Your task to perform on an android device: turn off notifications in google photos Image 0: 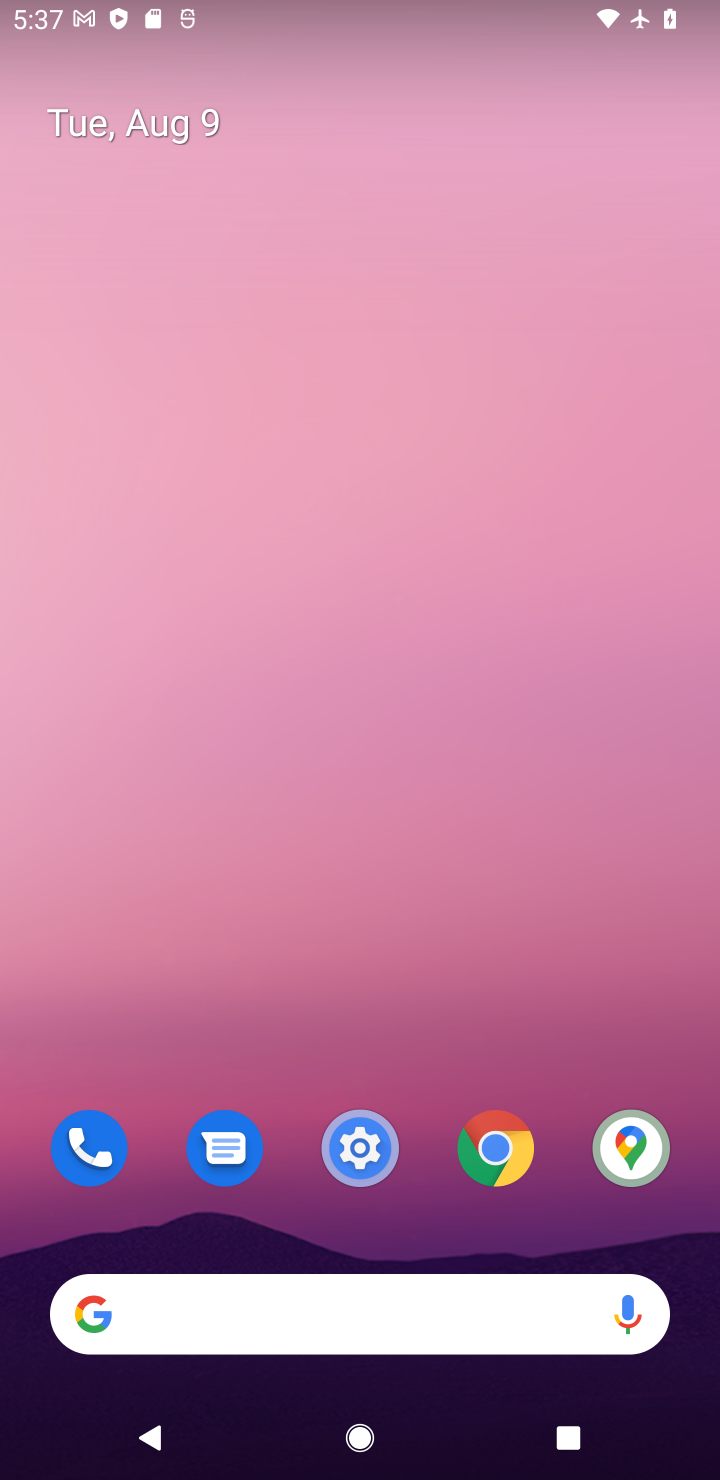
Step 0: drag from (299, 1279) to (435, 41)
Your task to perform on an android device: turn off notifications in google photos Image 1: 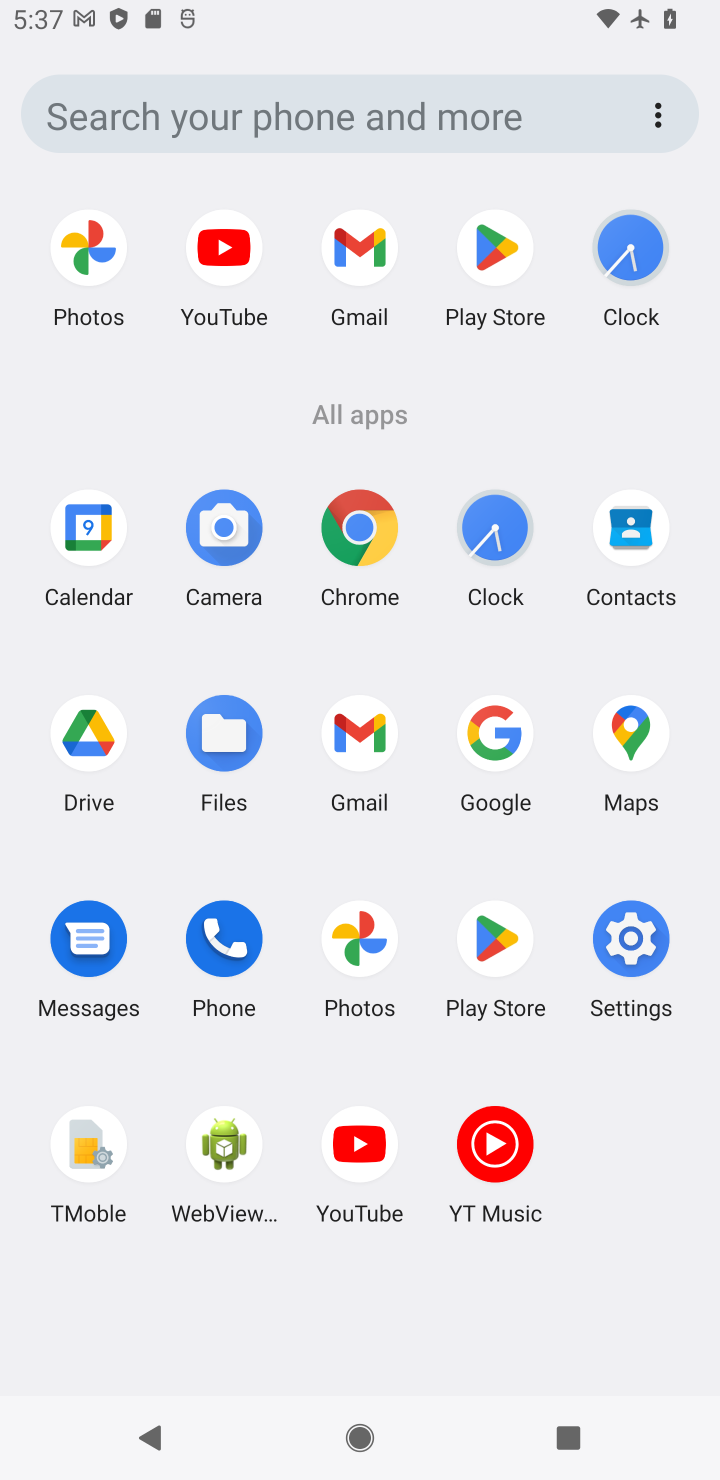
Step 1: click (367, 954)
Your task to perform on an android device: turn off notifications in google photos Image 2: 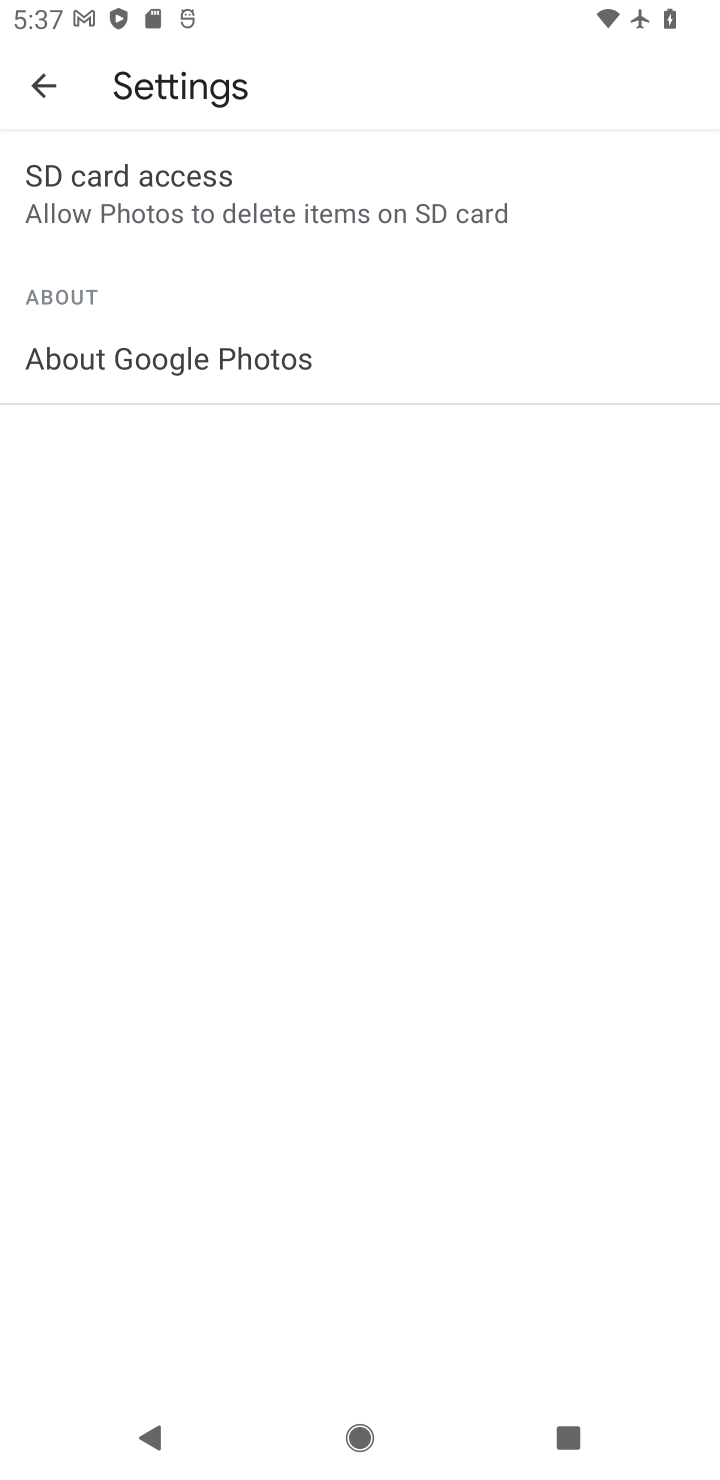
Step 2: click (36, 72)
Your task to perform on an android device: turn off notifications in google photos Image 3: 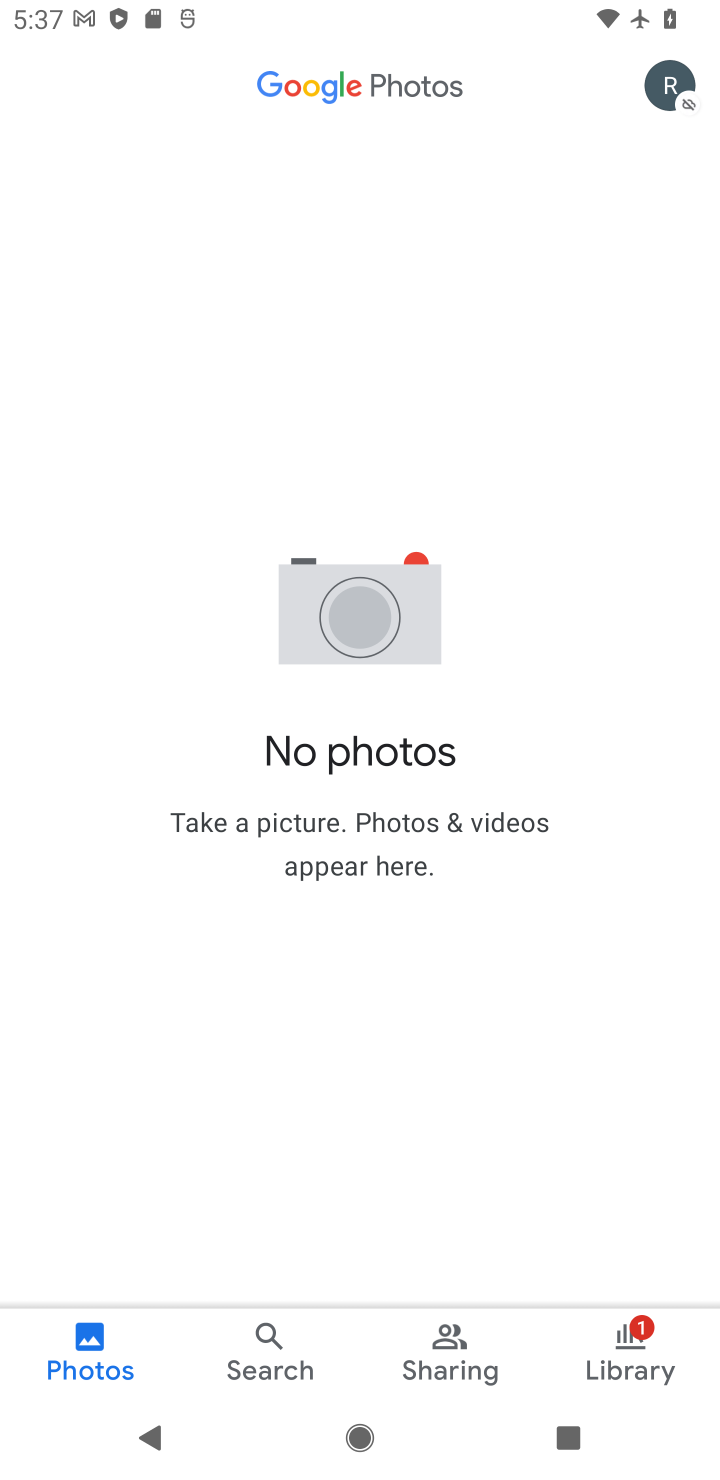
Step 3: click (669, 76)
Your task to perform on an android device: turn off notifications in google photos Image 4: 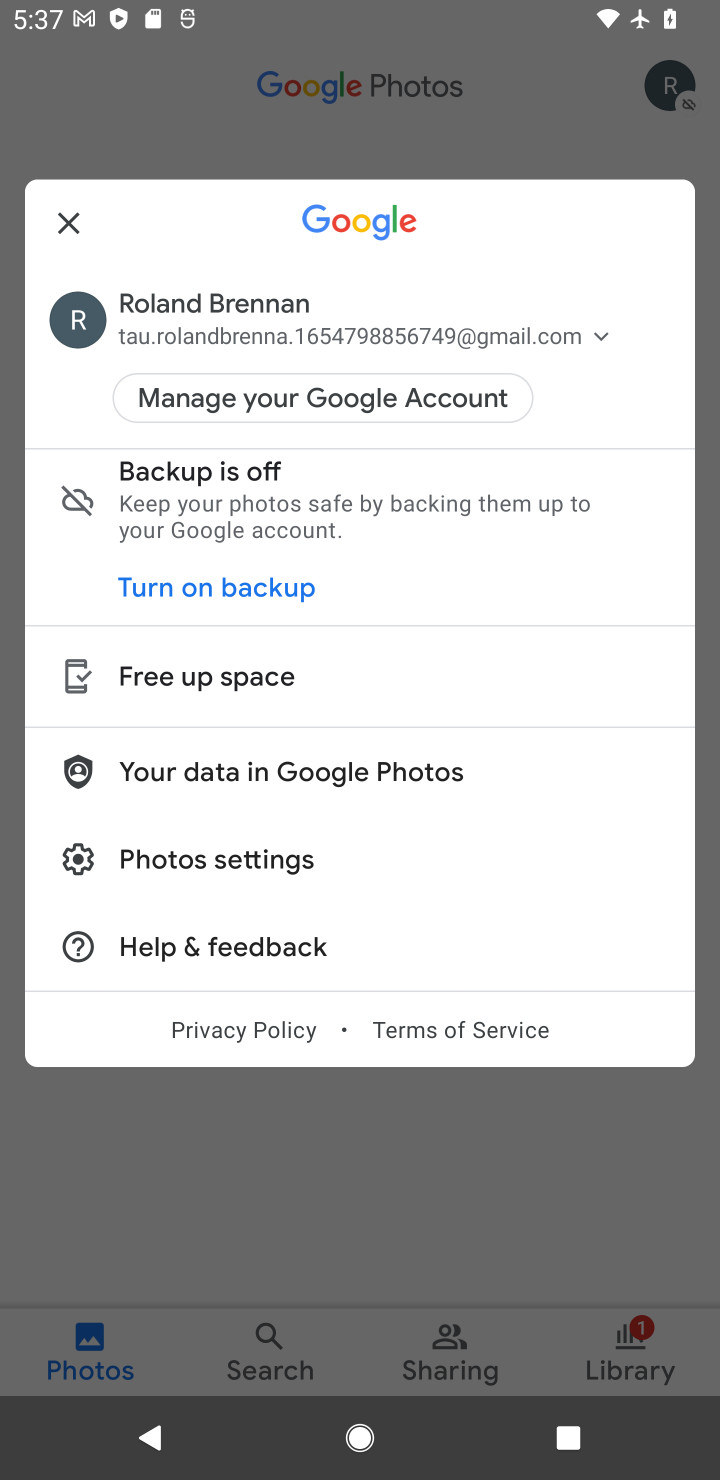
Step 4: click (253, 865)
Your task to perform on an android device: turn off notifications in google photos Image 5: 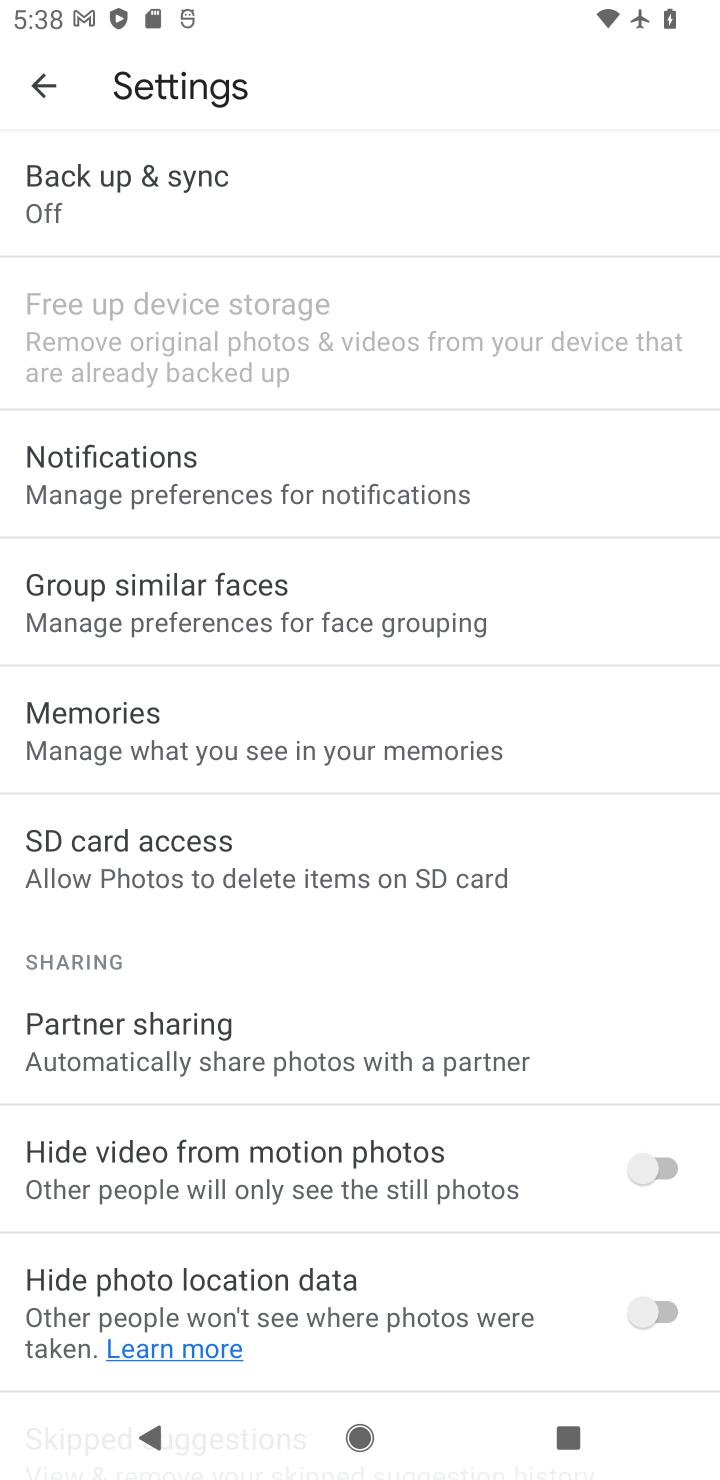
Step 5: click (150, 470)
Your task to perform on an android device: turn off notifications in google photos Image 6: 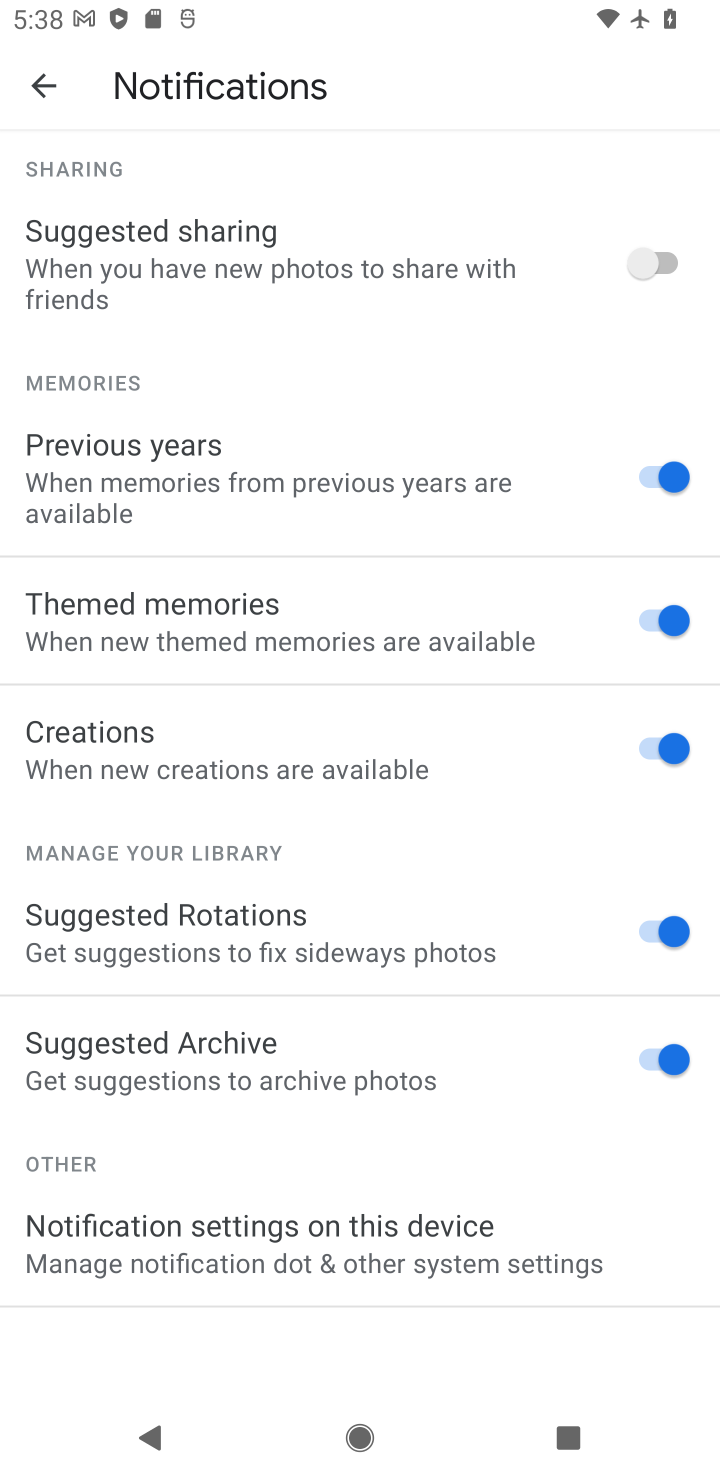
Step 6: click (366, 1270)
Your task to perform on an android device: turn off notifications in google photos Image 7: 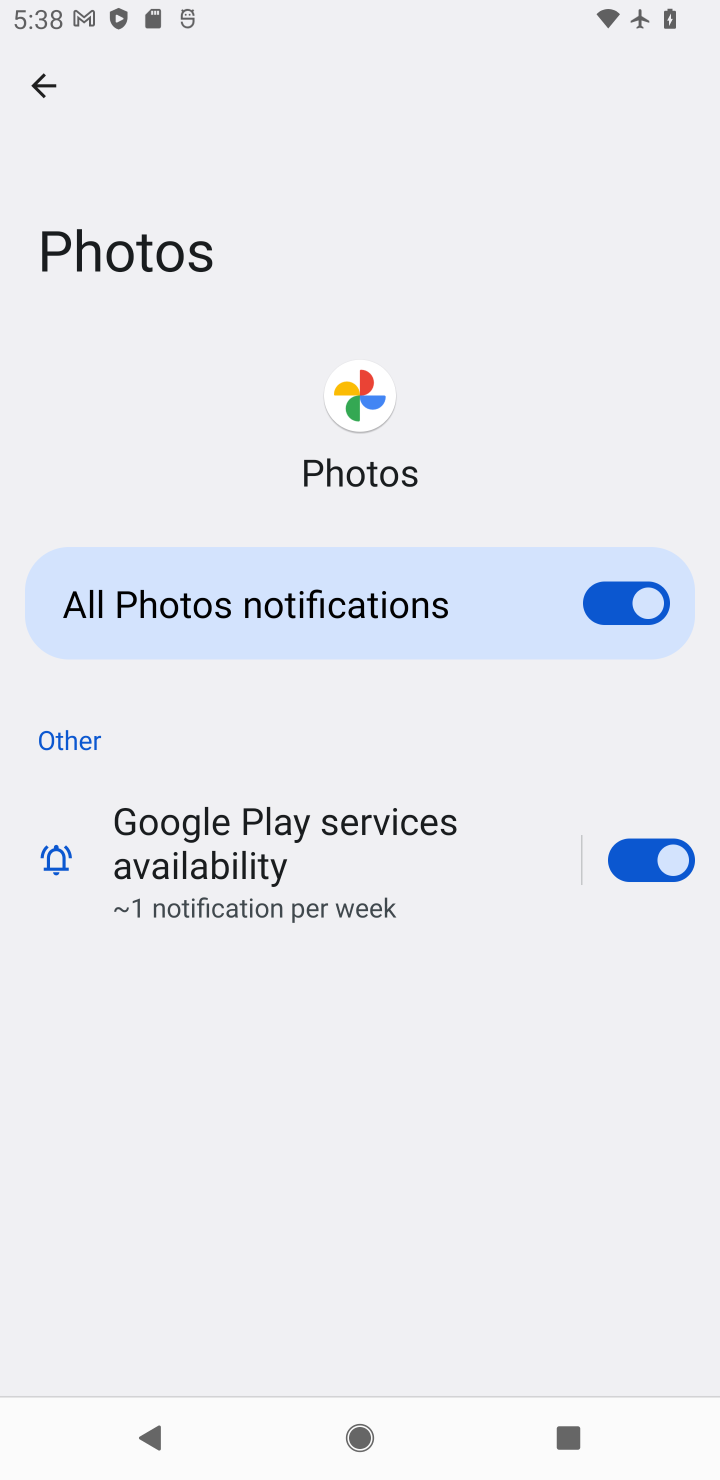
Step 7: click (560, 604)
Your task to perform on an android device: turn off notifications in google photos Image 8: 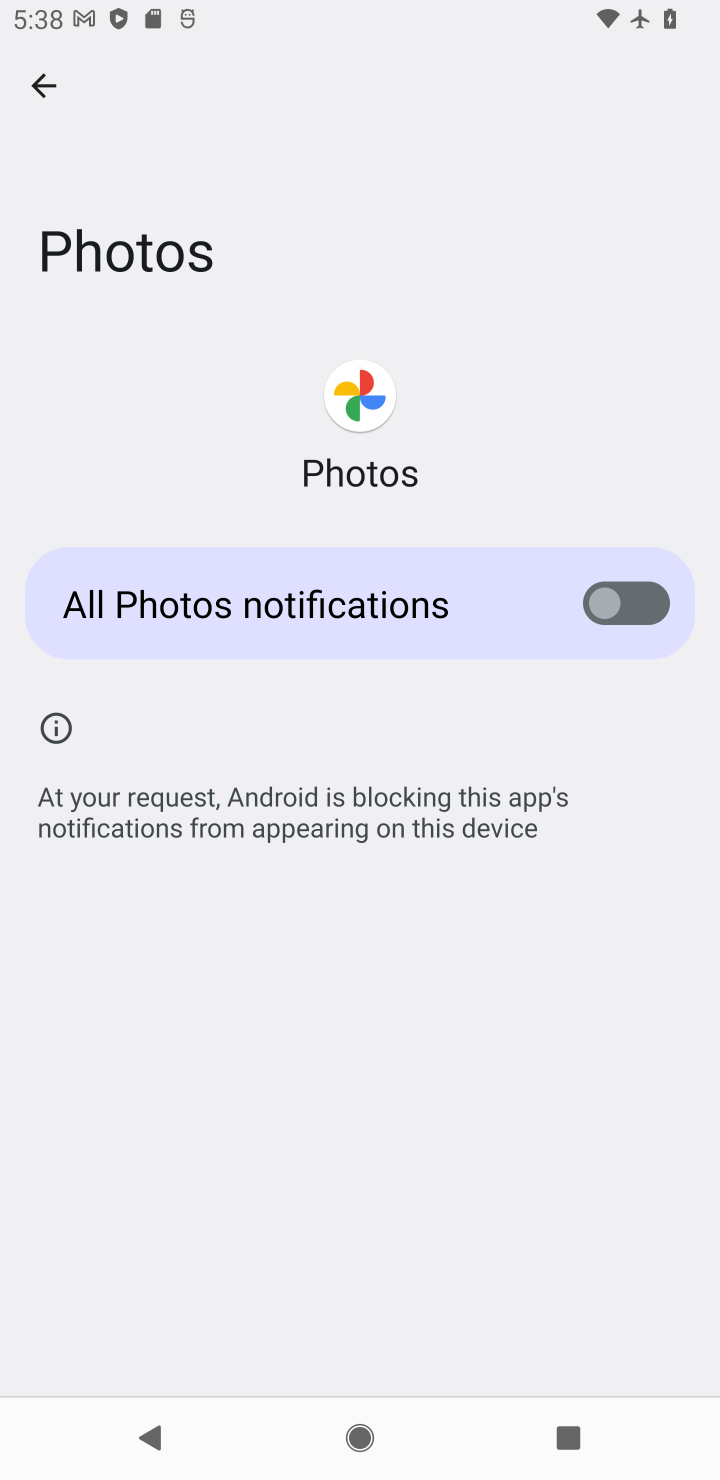
Step 8: task complete